Your task to perform on an android device: toggle translation in the chrome app Image 0: 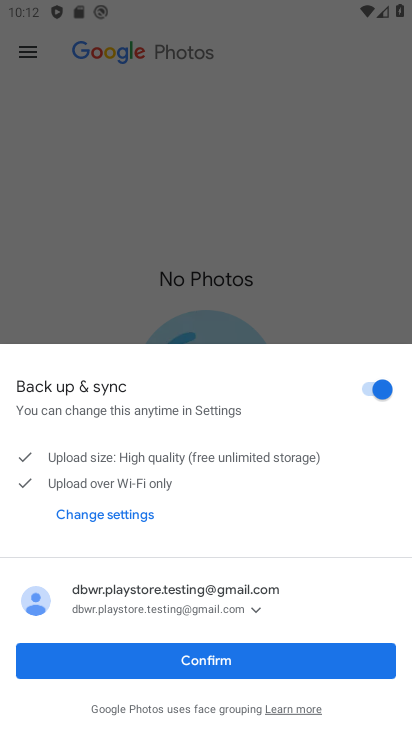
Step 0: press home button
Your task to perform on an android device: toggle translation in the chrome app Image 1: 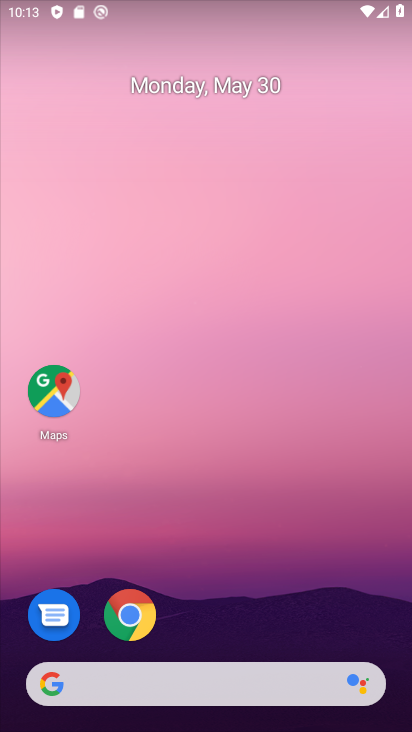
Step 1: click (119, 628)
Your task to perform on an android device: toggle translation in the chrome app Image 2: 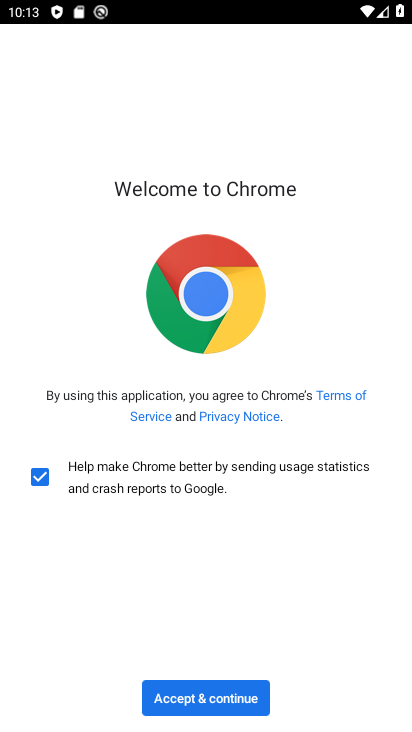
Step 2: click (233, 706)
Your task to perform on an android device: toggle translation in the chrome app Image 3: 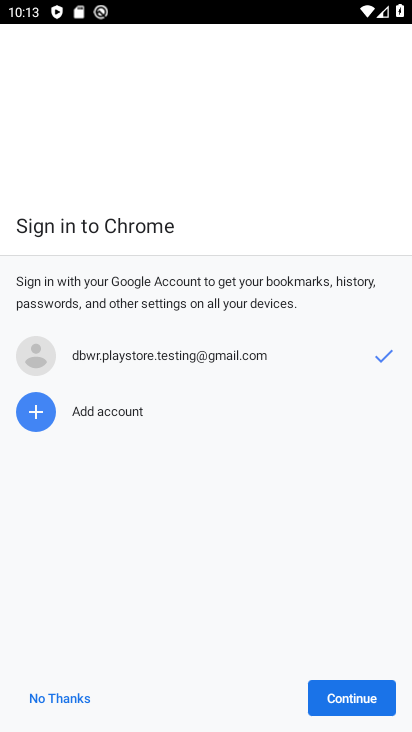
Step 3: click (376, 706)
Your task to perform on an android device: toggle translation in the chrome app Image 4: 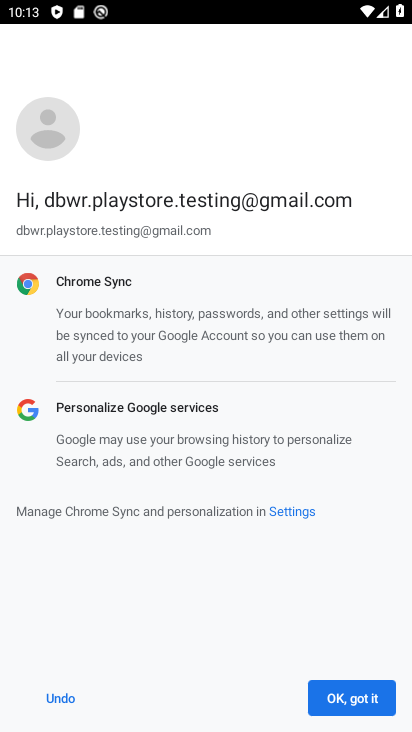
Step 4: click (366, 696)
Your task to perform on an android device: toggle translation in the chrome app Image 5: 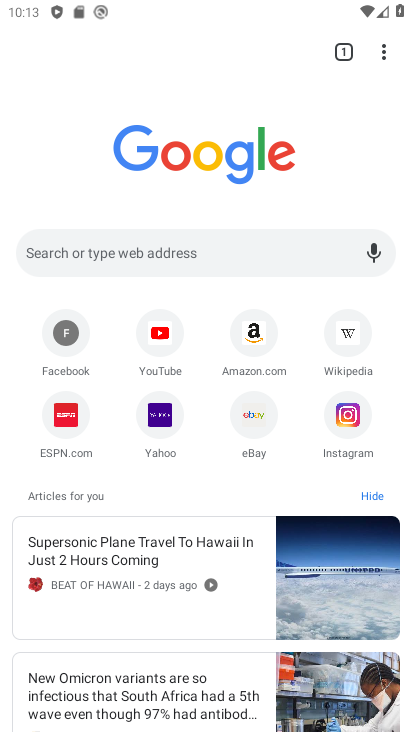
Step 5: drag from (382, 54) to (290, 429)
Your task to perform on an android device: toggle translation in the chrome app Image 6: 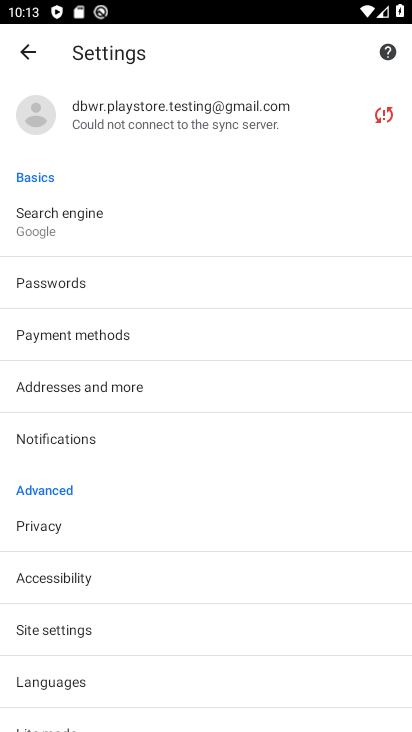
Step 6: drag from (113, 701) to (185, 420)
Your task to perform on an android device: toggle translation in the chrome app Image 7: 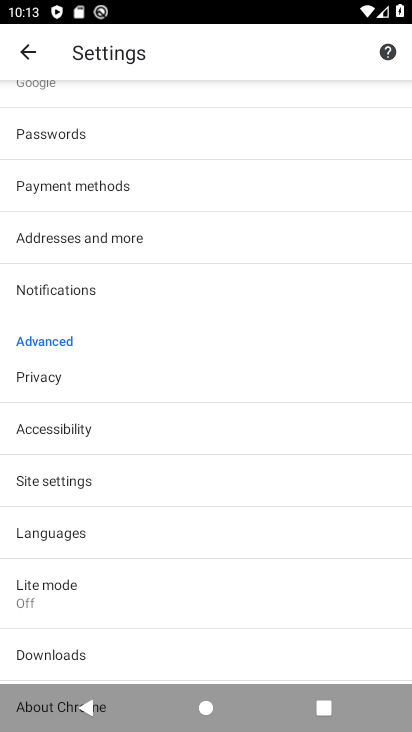
Step 7: click (118, 530)
Your task to perform on an android device: toggle translation in the chrome app Image 8: 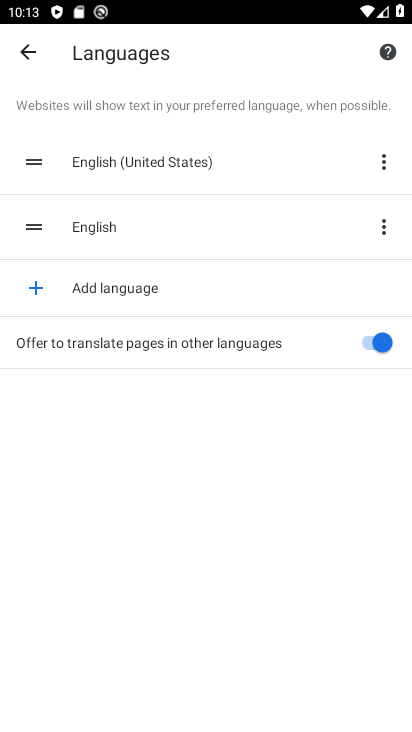
Step 8: click (379, 343)
Your task to perform on an android device: toggle translation in the chrome app Image 9: 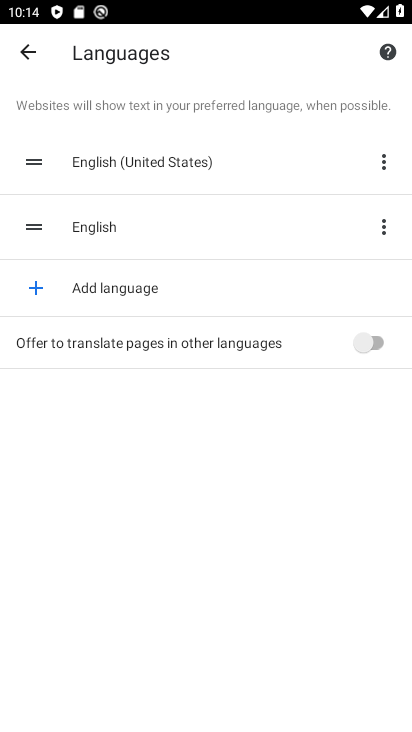
Step 9: task complete